Your task to perform on an android device: create a new album in the google photos Image 0: 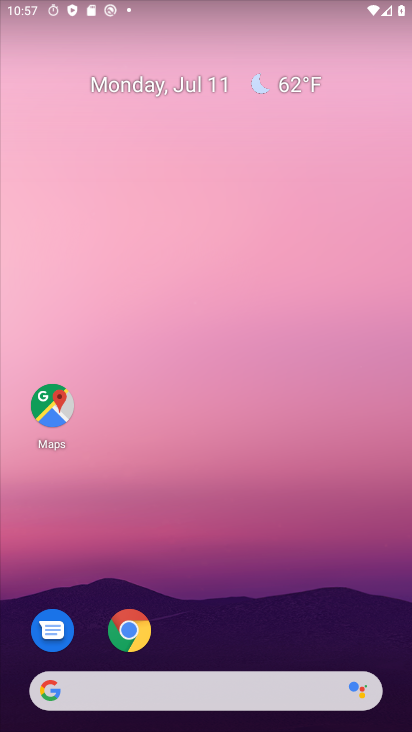
Step 0: drag from (268, 681) to (277, 38)
Your task to perform on an android device: create a new album in the google photos Image 1: 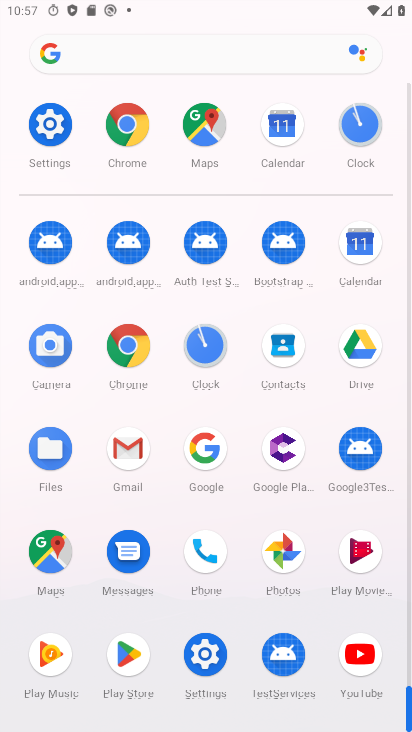
Step 1: click (283, 554)
Your task to perform on an android device: create a new album in the google photos Image 2: 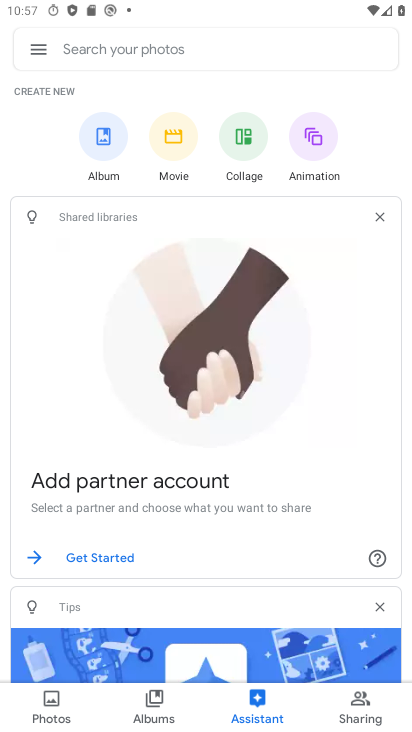
Step 2: click (150, 708)
Your task to perform on an android device: create a new album in the google photos Image 3: 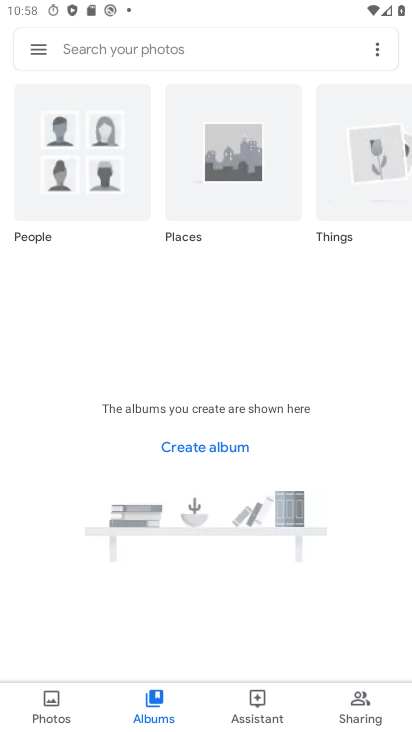
Step 3: click (378, 47)
Your task to perform on an android device: create a new album in the google photos Image 4: 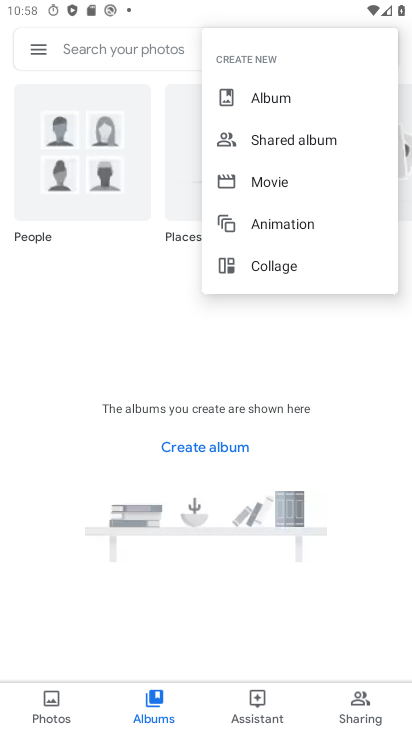
Step 4: task complete